Your task to perform on an android device: When is my next appointment? Image 0: 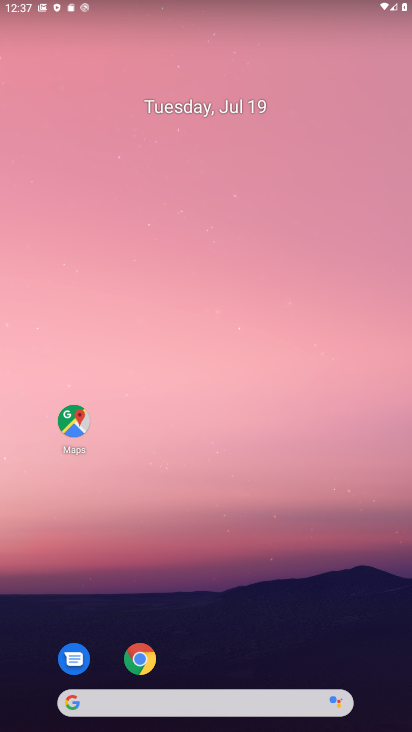
Step 0: drag from (383, 691) to (320, 51)
Your task to perform on an android device: When is my next appointment? Image 1: 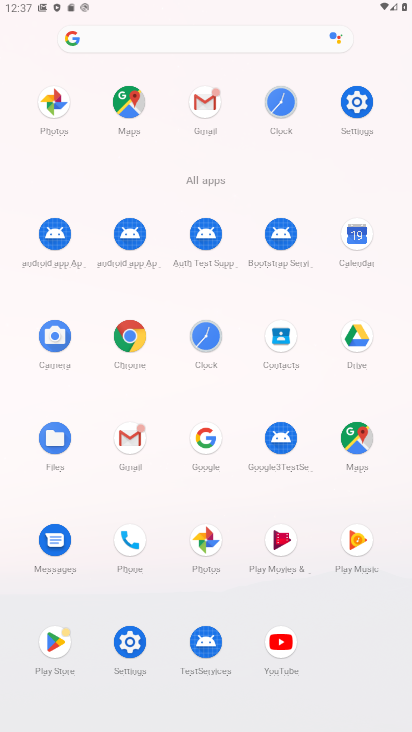
Step 1: click (354, 233)
Your task to perform on an android device: When is my next appointment? Image 2: 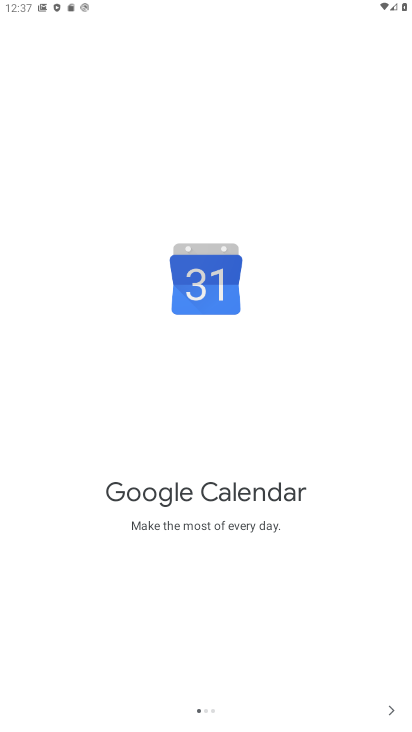
Step 2: click (381, 704)
Your task to perform on an android device: When is my next appointment? Image 3: 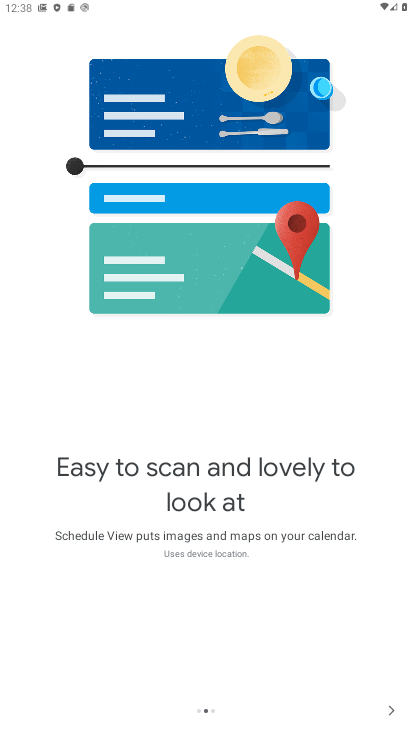
Step 3: click (386, 705)
Your task to perform on an android device: When is my next appointment? Image 4: 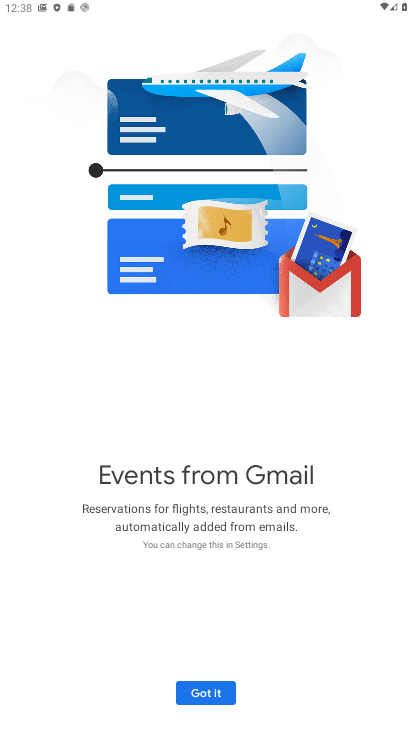
Step 4: click (386, 705)
Your task to perform on an android device: When is my next appointment? Image 5: 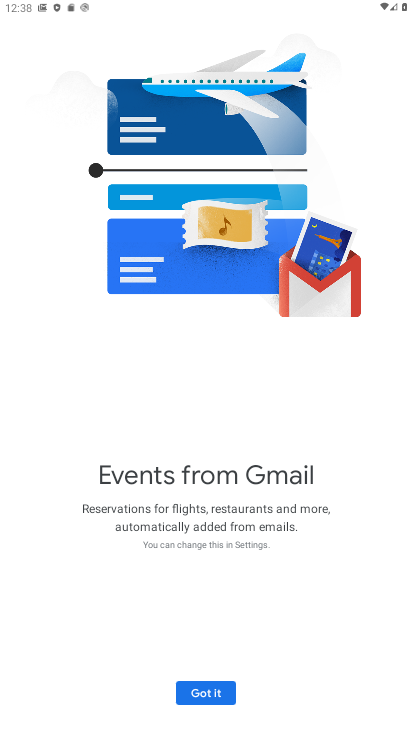
Step 5: click (183, 694)
Your task to perform on an android device: When is my next appointment? Image 6: 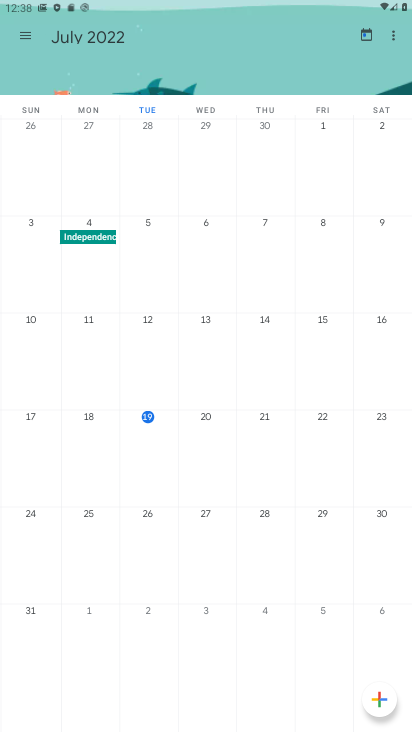
Step 6: click (25, 30)
Your task to perform on an android device: When is my next appointment? Image 7: 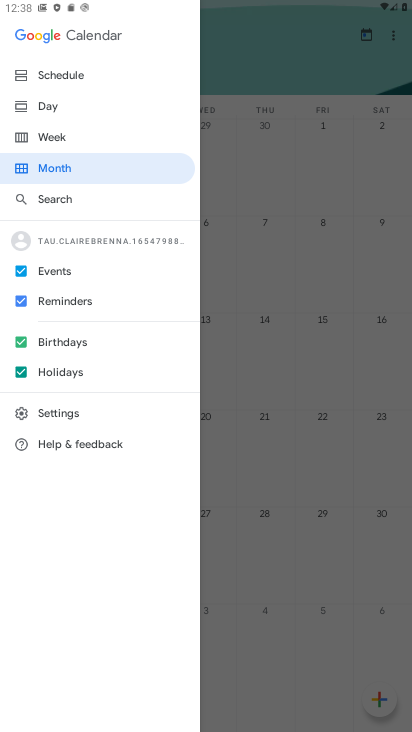
Step 7: click (55, 70)
Your task to perform on an android device: When is my next appointment? Image 8: 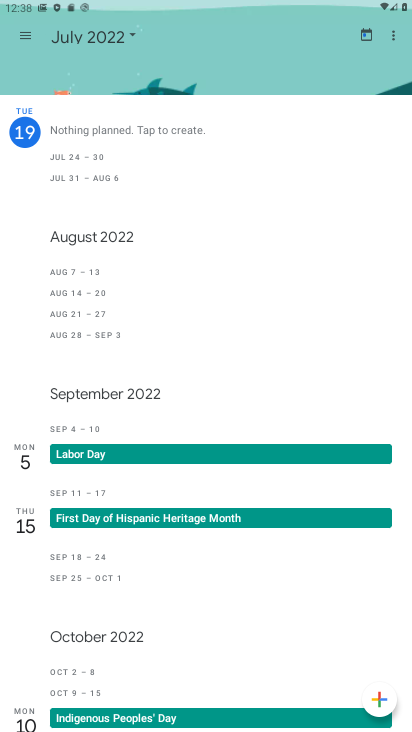
Step 8: task complete